Your task to perform on an android device: Search for pizza restaurants on Maps Image 0: 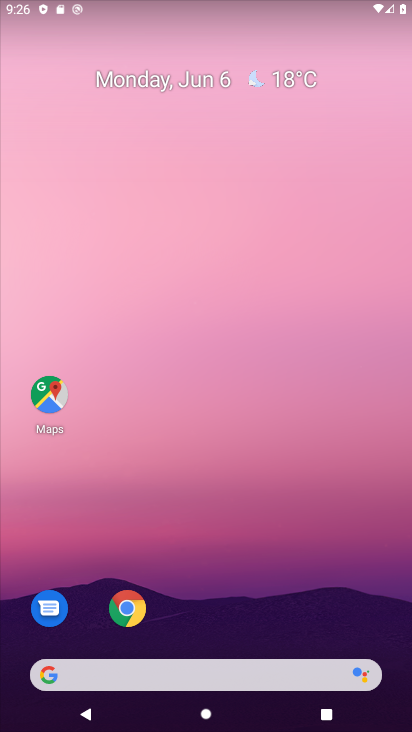
Step 0: click (48, 397)
Your task to perform on an android device: Search for pizza restaurants on Maps Image 1: 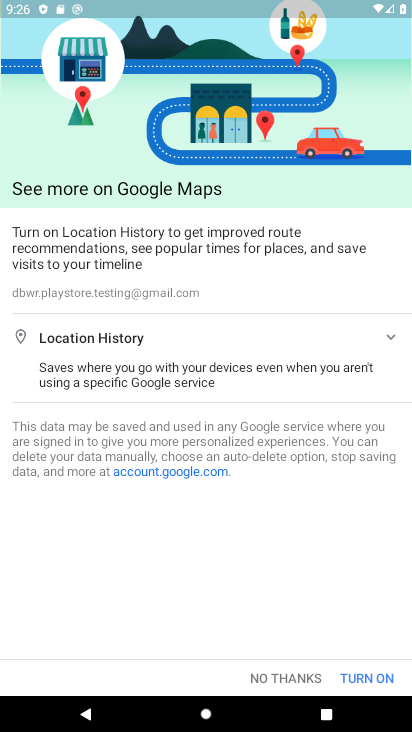
Step 1: click (291, 674)
Your task to perform on an android device: Search for pizza restaurants on Maps Image 2: 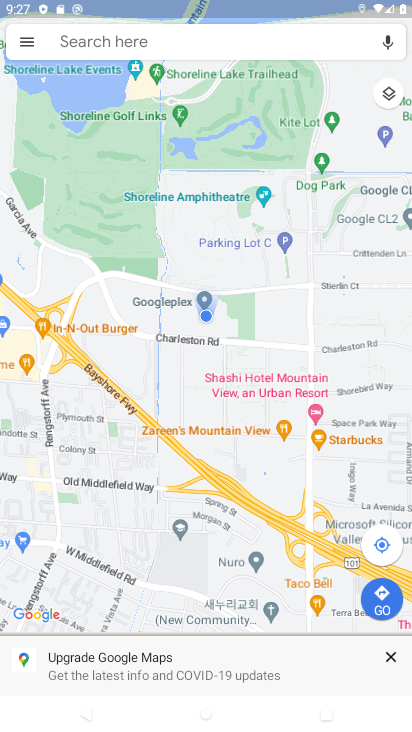
Step 2: click (148, 46)
Your task to perform on an android device: Search for pizza restaurants on Maps Image 3: 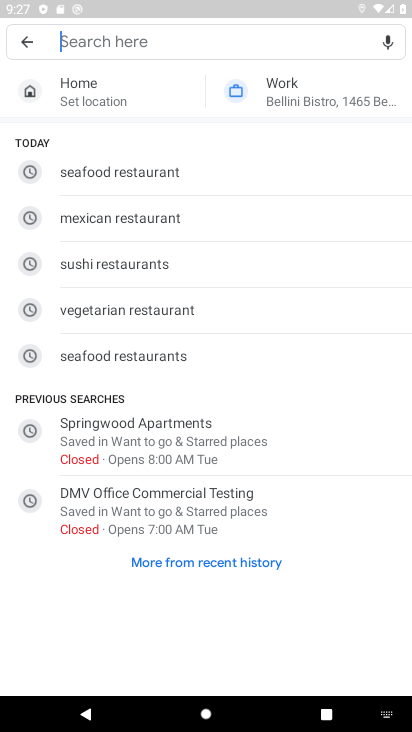
Step 3: type "pizza restaurants"
Your task to perform on an android device: Search for pizza restaurants on Maps Image 4: 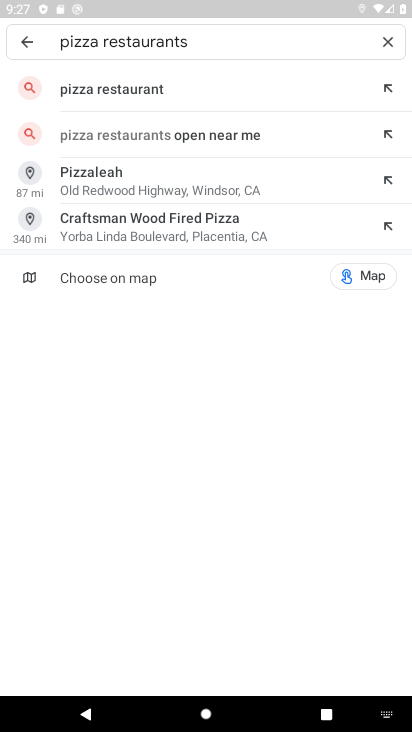
Step 4: click (160, 94)
Your task to perform on an android device: Search for pizza restaurants on Maps Image 5: 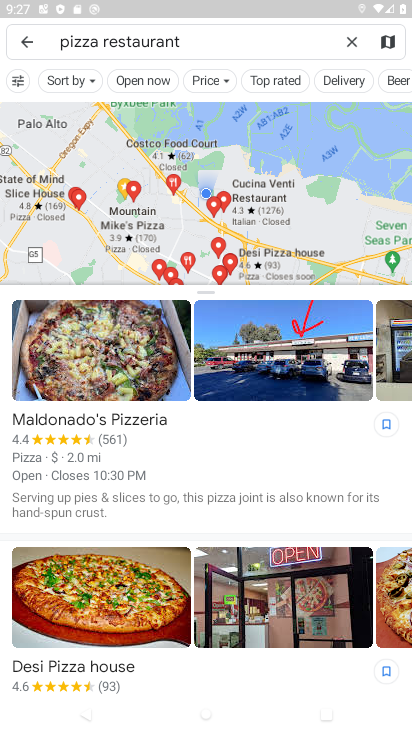
Step 5: task complete